Your task to perform on an android device: Open Google Chrome and click the shortcut for Amazon.com Image 0: 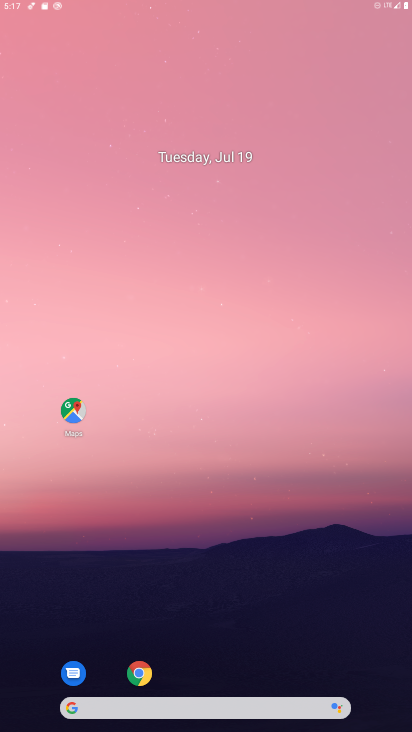
Step 0: press home button
Your task to perform on an android device: Open Google Chrome and click the shortcut for Amazon.com Image 1: 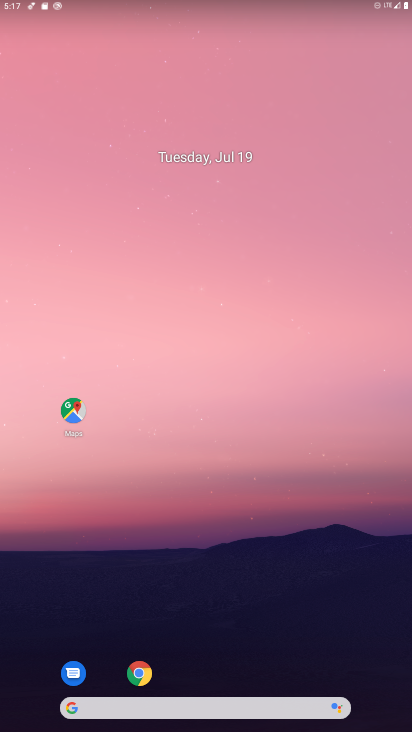
Step 1: click (145, 670)
Your task to perform on an android device: Open Google Chrome and click the shortcut for Amazon.com Image 2: 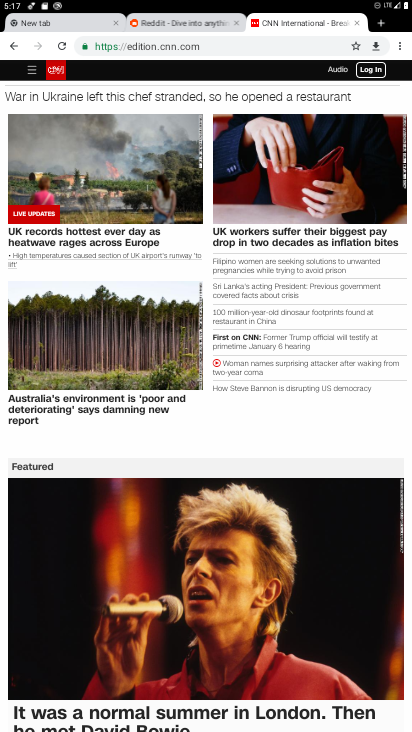
Step 2: click (53, 21)
Your task to perform on an android device: Open Google Chrome and click the shortcut for Amazon.com Image 3: 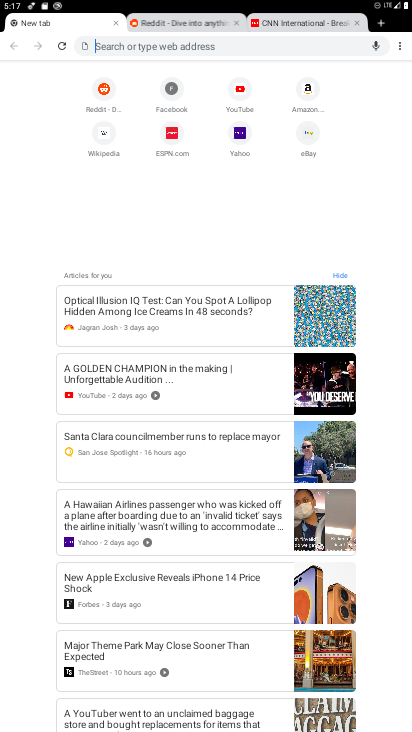
Step 3: click (305, 84)
Your task to perform on an android device: Open Google Chrome and click the shortcut for Amazon.com Image 4: 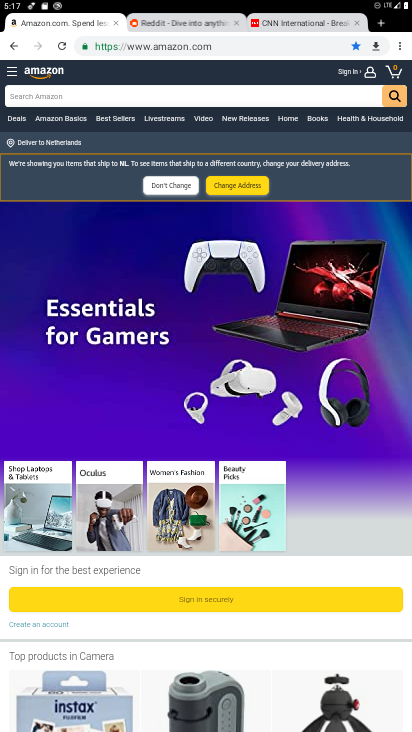
Step 4: task complete